Your task to perform on an android device: delete location history Image 0: 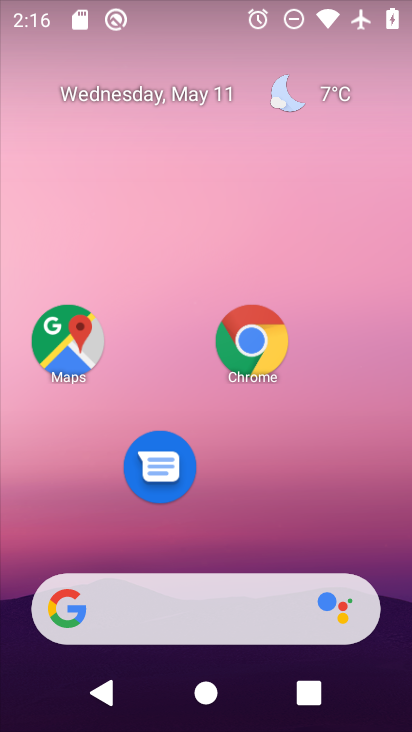
Step 0: drag from (162, 611) to (285, 97)
Your task to perform on an android device: delete location history Image 1: 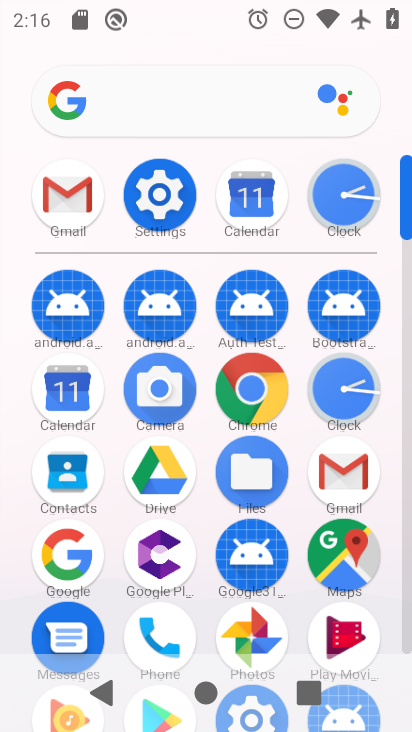
Step 1: click (348, 566)
Your task to perform on an android device: delete location history Image 2: 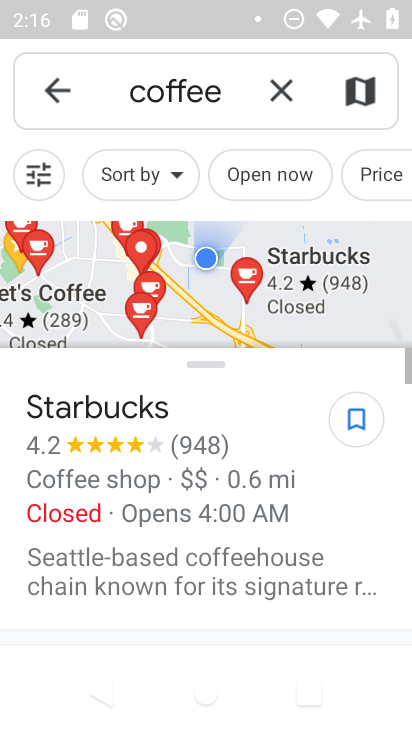
Step 2: click (55, 86)
Your task to perform on an android device: delete location history Image 3: 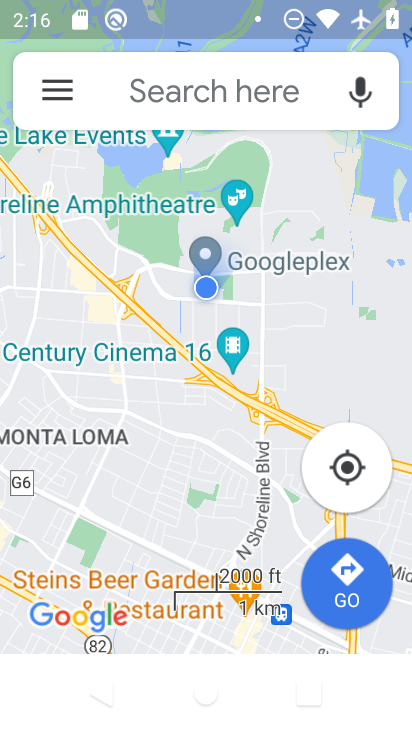
Step 3: click (55, 86)
Your task to perform on an android device: delete location history Image 4: 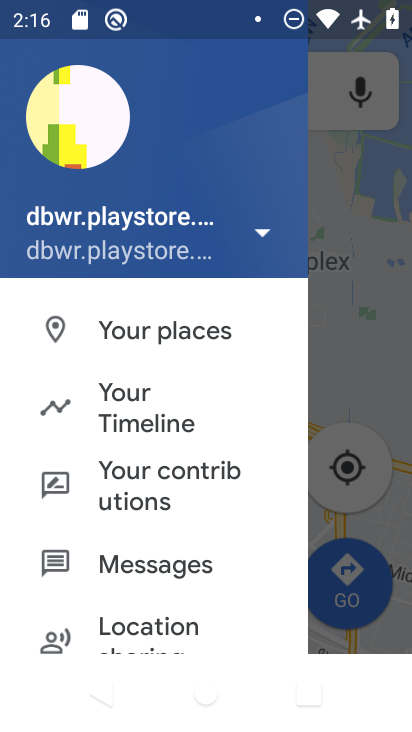
Step 4: click (161, 400)
Your task to perform on an android device: delete location history Image 5: 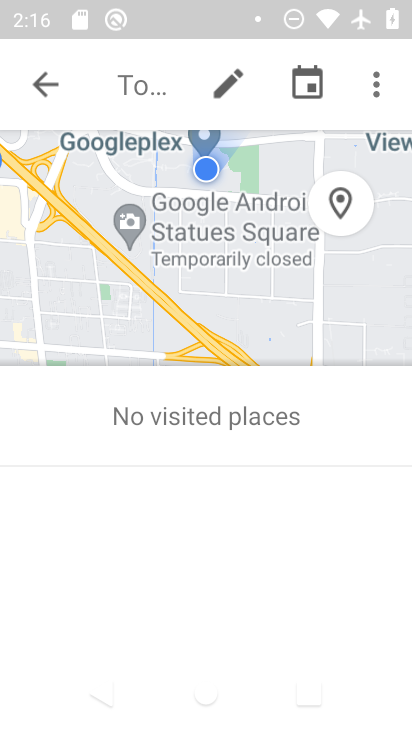
Step 5: click (371, 92)
Your task to perform on an android device: delete location history Image 6: 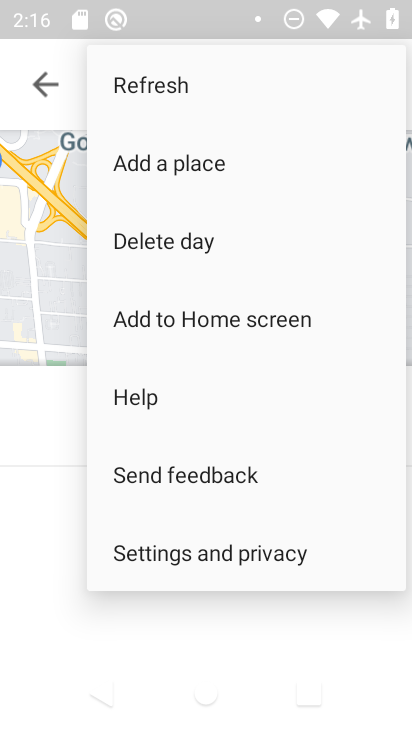
Step 6: click (181, 563)
Your task to perform on an android device: delete location history Image 7: 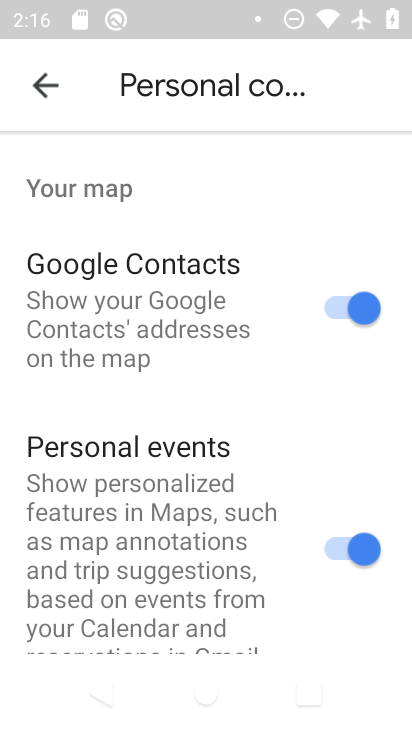
Step 7: drag from (171, 574) to (294, 120)
Your task to perform on an android device: delete location history Image 8: 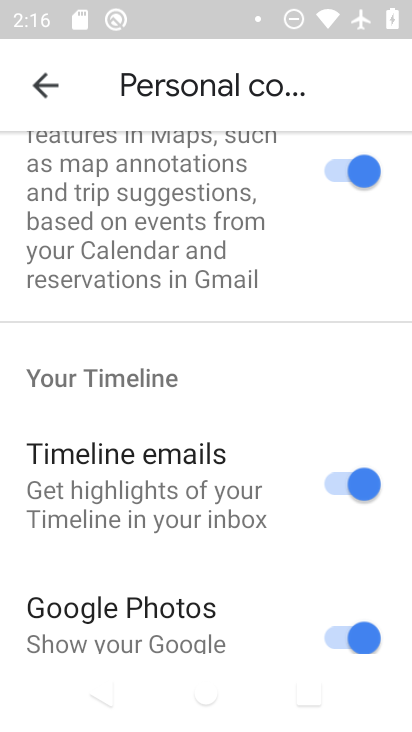
Step 8: drag from (152, 619) to (313, 148)
Your task to perform on an android device: delete location history Image 9: 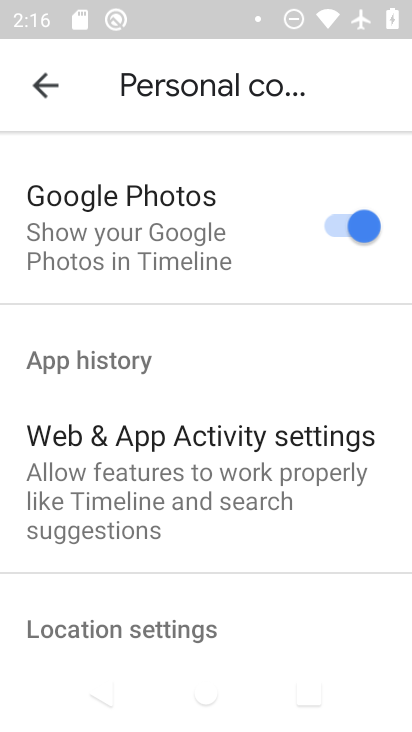
Step 9: drag from (137, 558) to (268, 115)
Your task to perform on an android device: delete location history Image 10: 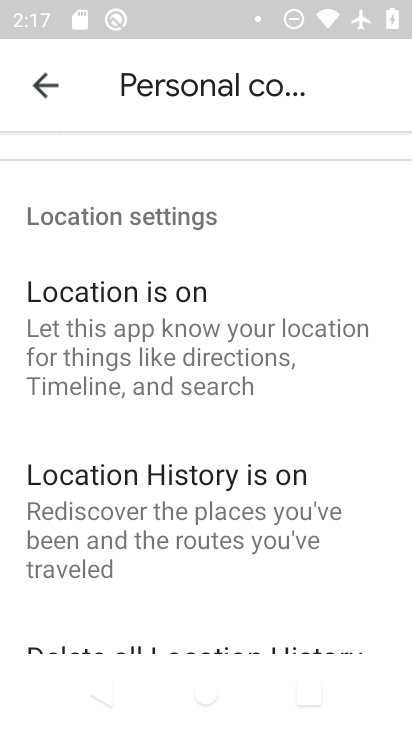
Step 10: drag from (152, 546) to (284, 190)
Your task to perform on an android device: delete location history Image 11: 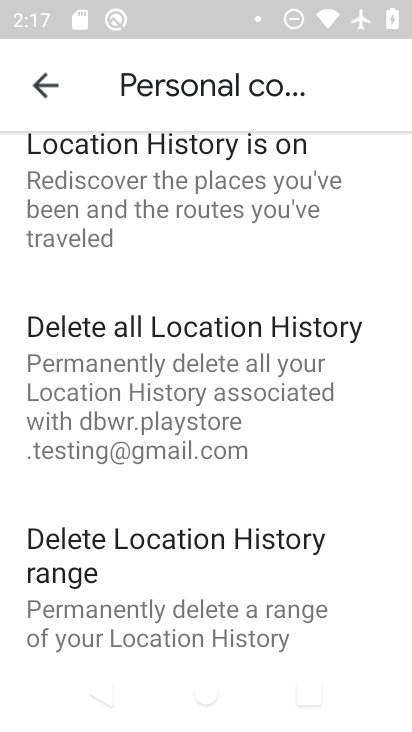
Step 11: click (185, 340)
Your task to perform on an android device: delete location history Image 12: 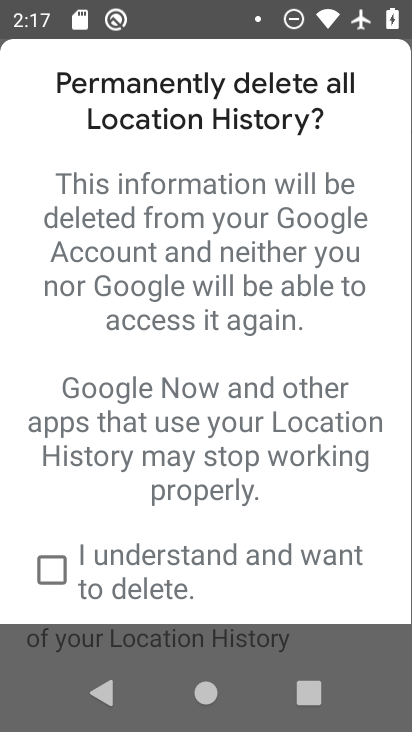
Step 12: click (56, 575)
Your task to perform on an android device: delete location history Image 13: 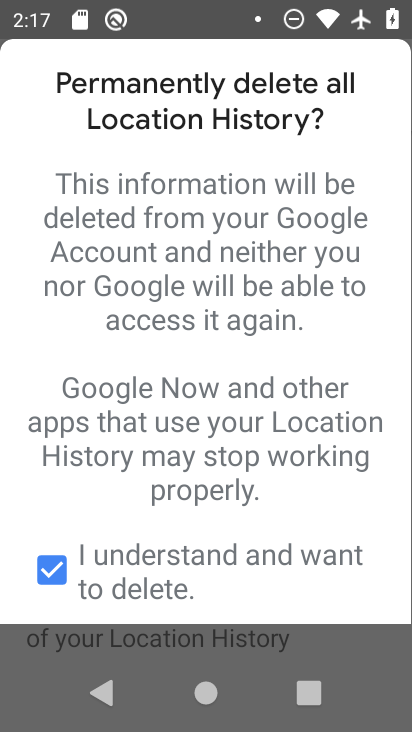
Step 13: task complete